Your task to perform on an android device: turn on the 24-hour format for clock Image 0: 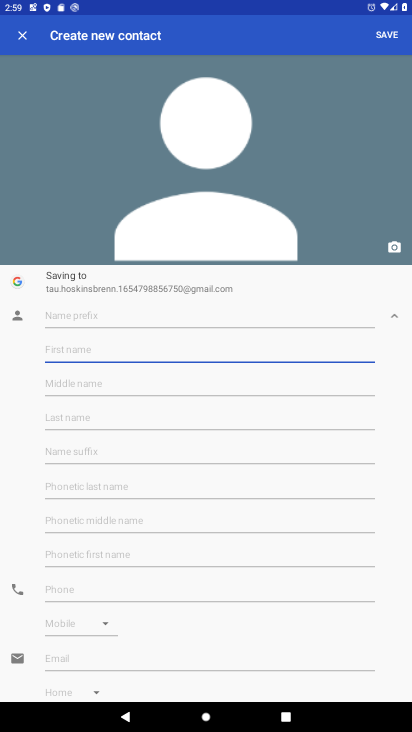
Step 0: press home button
Your task to perform on an android device: turn on the 24-hour format for clock Image 1: 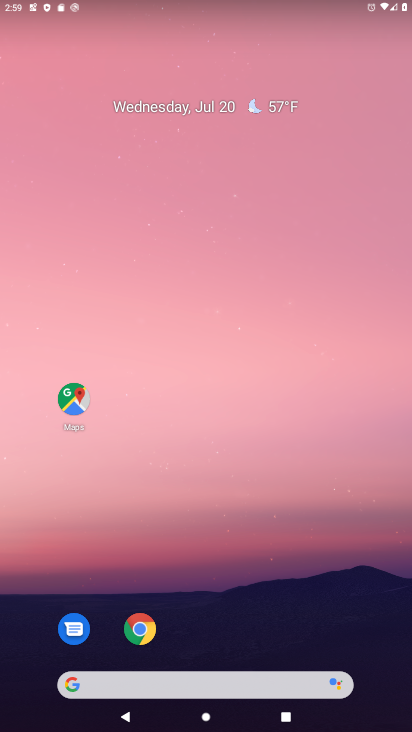
Step 1: drag from (378, 662) to (349, 74)
Your task to perform on an android device: turn on the 24-hour format for clock Image 2: 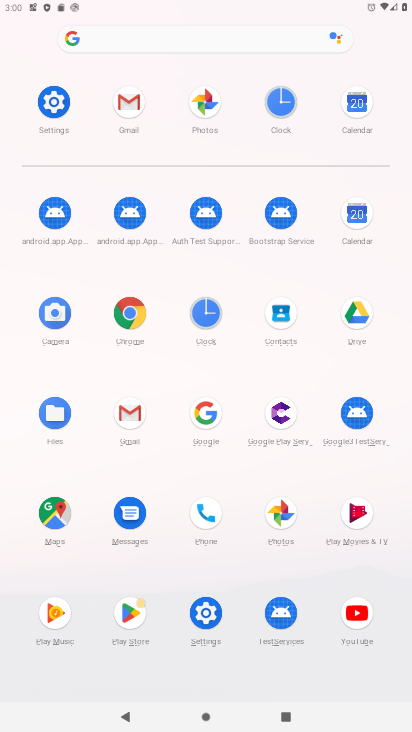
Step 2: click (206, 312)
Your task to perform on an android device: turn on the 24-hour format for clock Image 3: 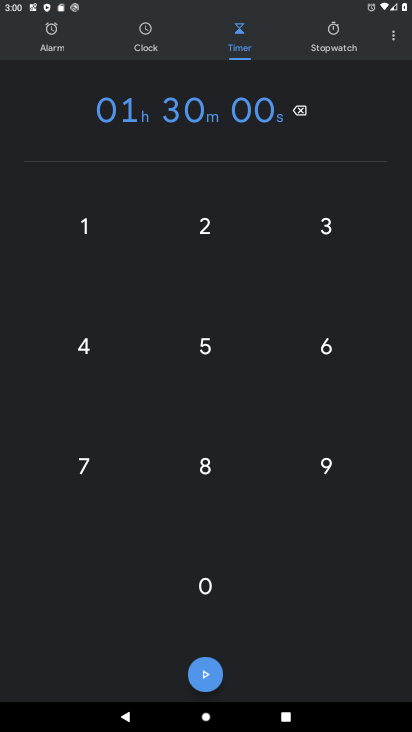
Step 3: click (396, 43)
Your task to perform on an android device: turn on the 24-hour format for clock Image 4: 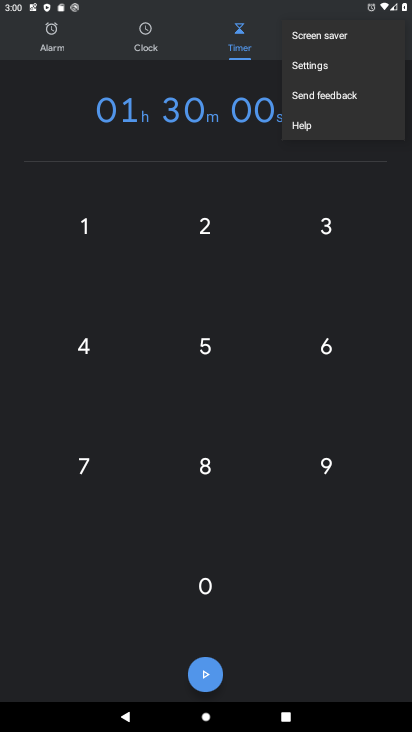
Step 4: click (310, 57)
Your task to perform on an android device: turn on the 24-hour format for clock Image 5: 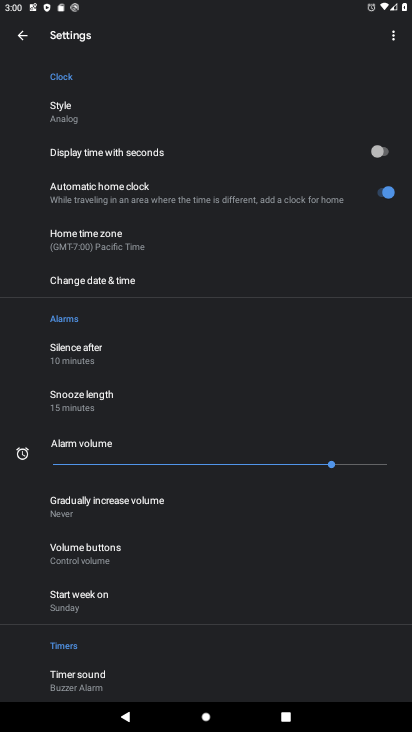
Step 5: click (116, 280)
Your task to perform on an android device: turn on the 24-hour format for clock Image 6: 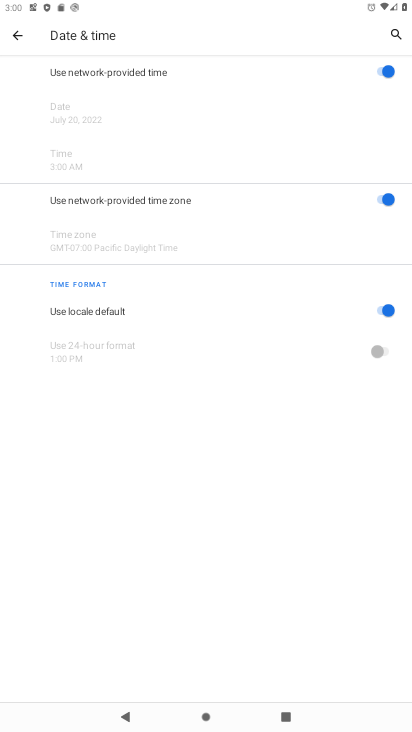
Step 6: click (376, 307)
Your task to perform on an android device: turn on the 24-hour format for clock Image 7: 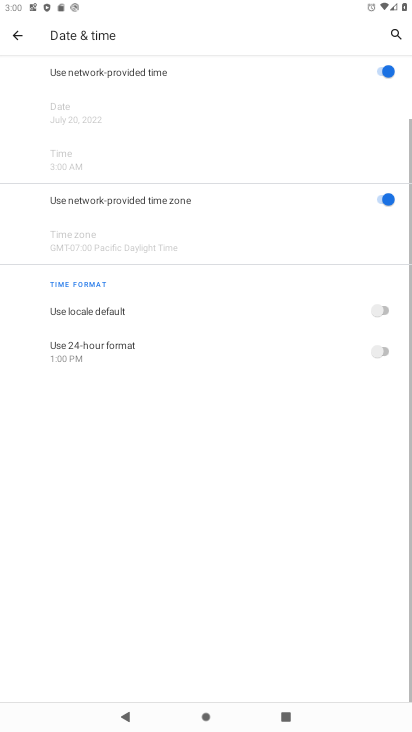
Step 7: click (383, 352)
Your task to perform on an android device: turn on the 24-hour format for clock Image 8: 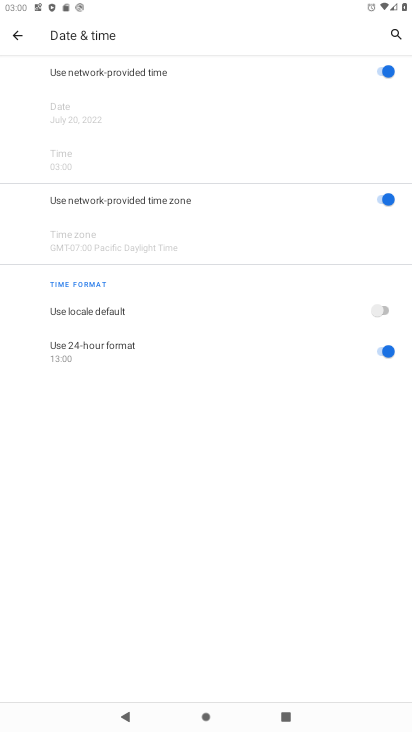
Step 8: task complete